Your task to perform on an android device: allow notifications from all sites in the chrome app Image 0: 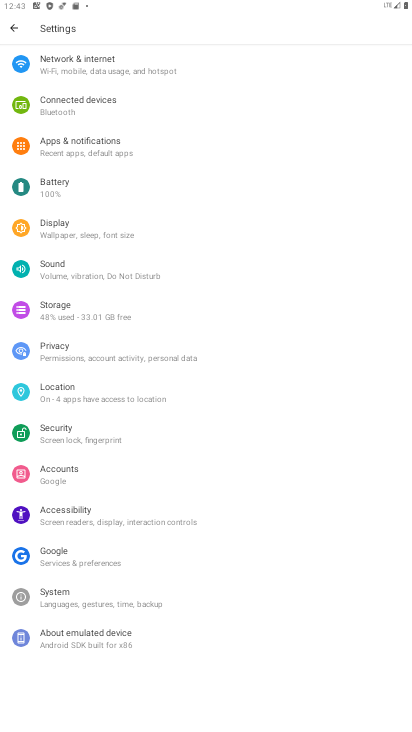
Step 0: press home button
Your task to perform on an android device: allow notifications from all sites in the chrome app Image 1: 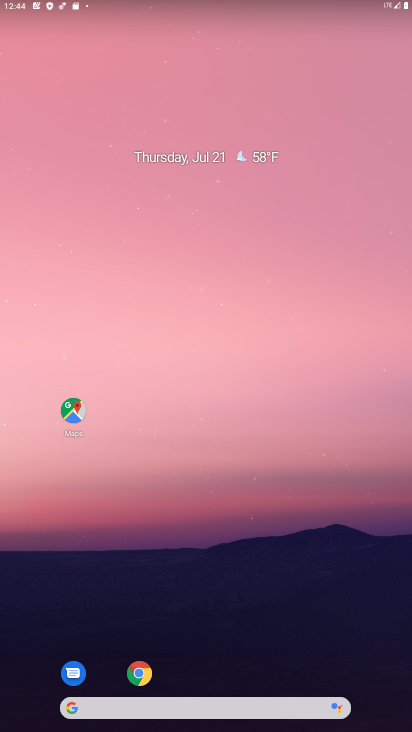
Step 1: click (148, 680)
Your task to perform on an android device: allow notifications from all sites in the chrome app Image 2: 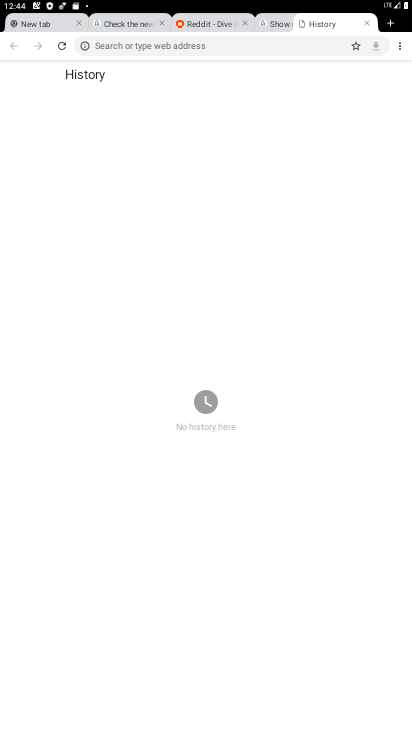
Step 2: click (393, 43)
Your task to perform on an android device: allow notifications from all sites in the chrome app Image 3: 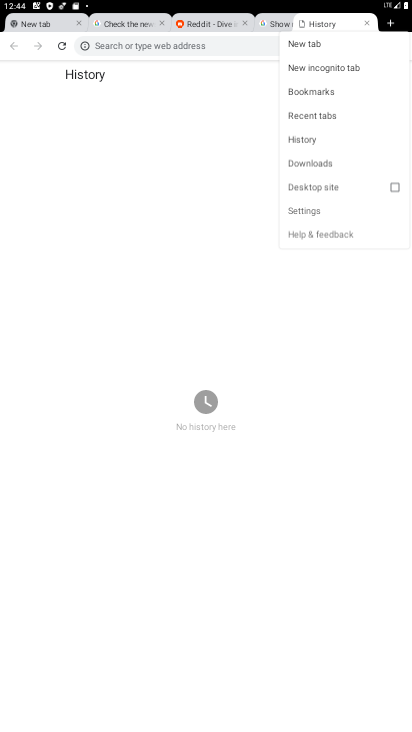
Step 3: click (401, 54)
Your task to perform on an android device: allow notifications from all sites in the chrome app Image 4: 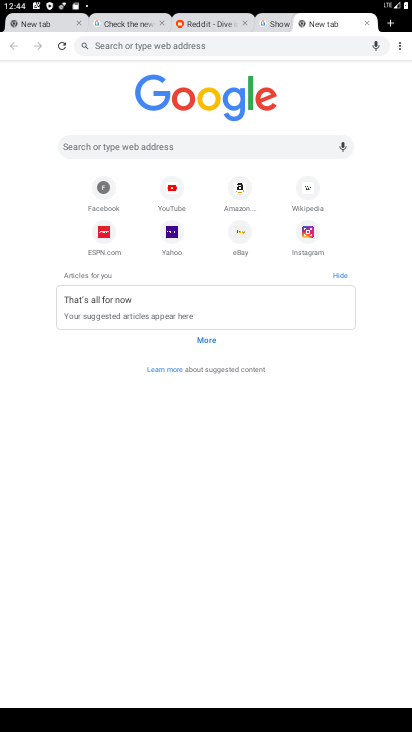
Step 4: click (398, 46)
Your task to perform on an android device: allow notifications from all sites in the chrome app Image 5: 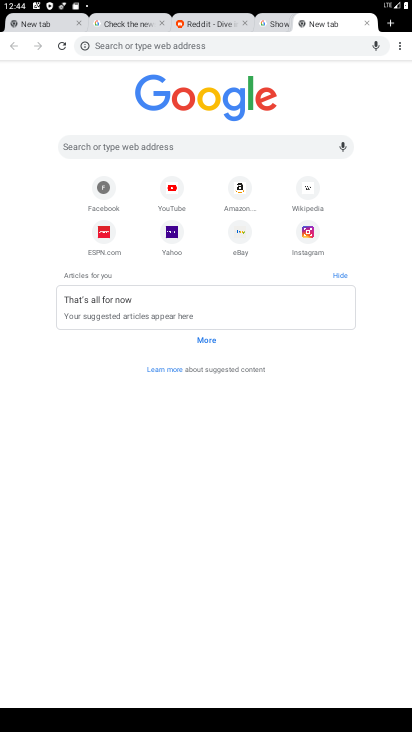
Step 5: click (410, 44)
Your task to perform on an android device: allow notifications from all sites in the chrome app Image 6: 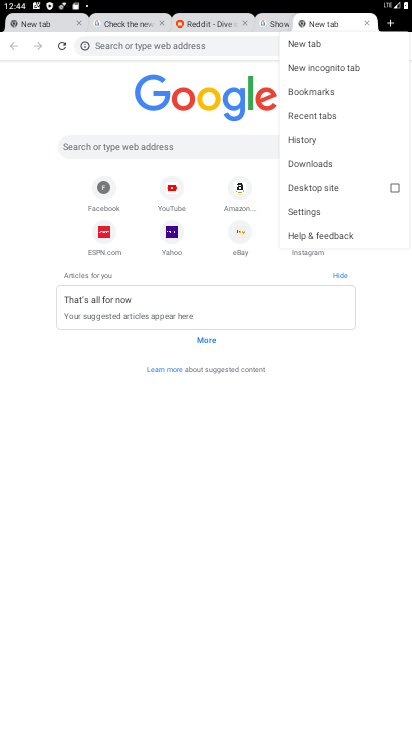
Step 6: click (319, 202)
Your task to perform on an android device: allow notifications from all sites in the chrome app Image 7: 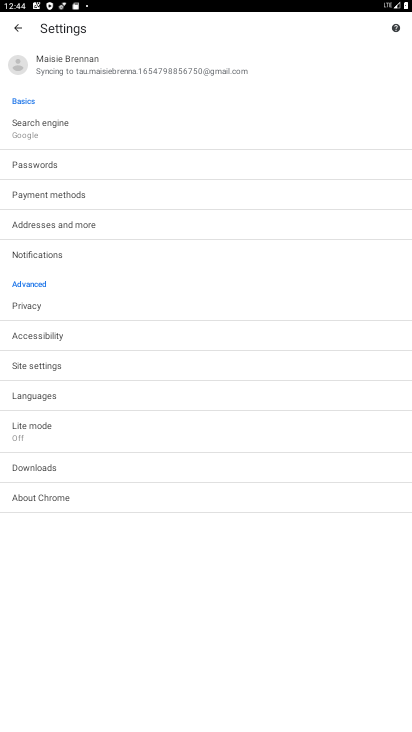
Step 7: click (55, 366)
Your task to perform on an android device: allow notifications from all sites in the chrome app Image 8: 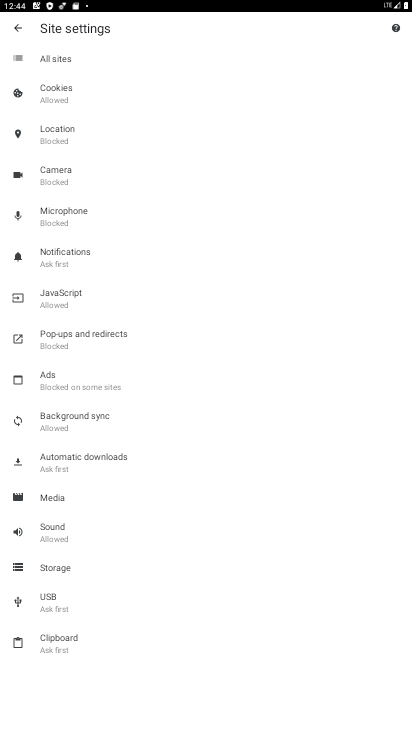
Step 8: click (56, 98)
Your task to perform on an android device: allow notifications from all sites in the chrome app Image 9: 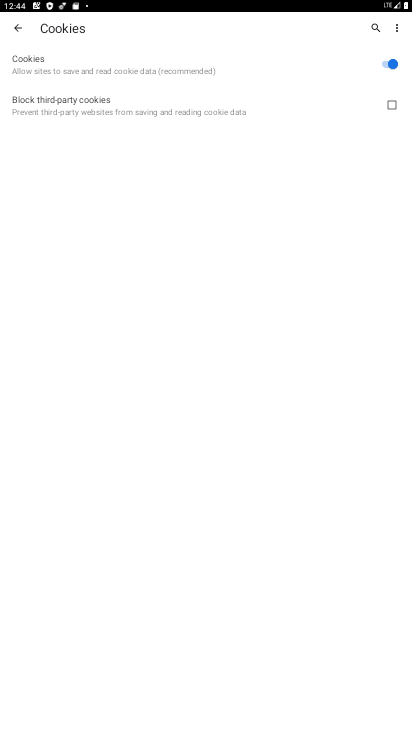
Step 9: click (21, 32)
Your task to perform on an android device: allow notifications from all sites in the chrome app Image 10: 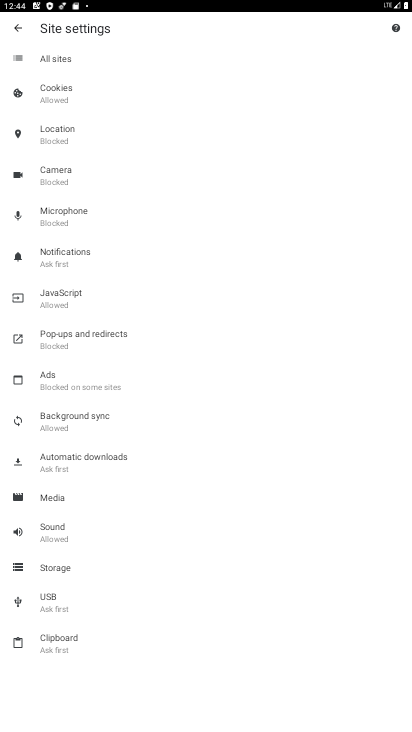
Step 10: click (60, 632)
Your task to perform on an android device: allow notifications from all sites in the chrome app Image 11: 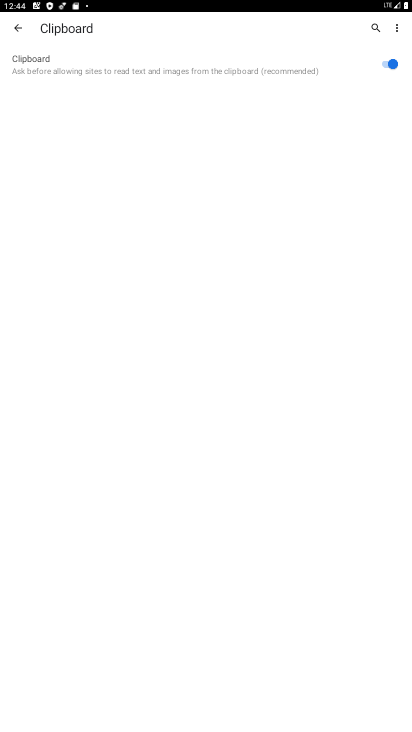
Step 11: click (12, 20)
Your task to perform on an android device: allow notifications from all sites in the chrome app Image 12: 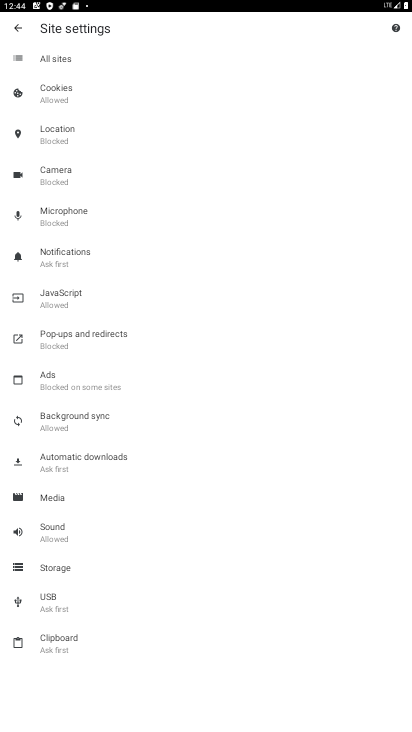
Step 12: click (61, 568)
Your task to perform on an android device: allow notifications from all sites in the chrome app Image 13: 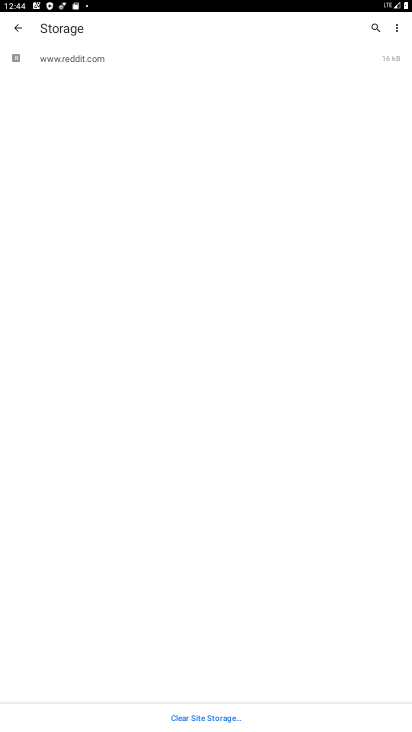
Step 13: click (22, 29)
Your task to perform on an android device: allow notifications from all sites in the chrome app Image 14: 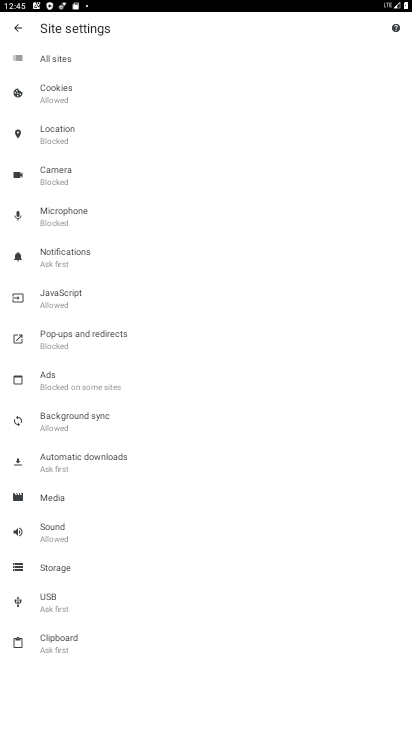
Step 14: task complete